Your task to perform on an android device: Go to Amazon Image 0: 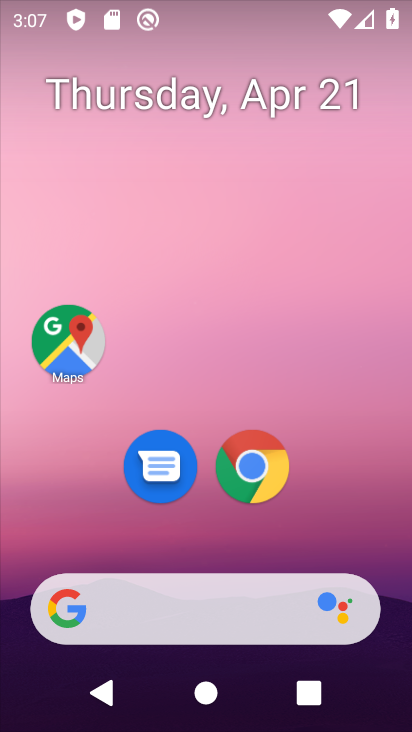
Step 0: click (241, 457)
Your task to perform on an android device: Go to Amazon Image 1: 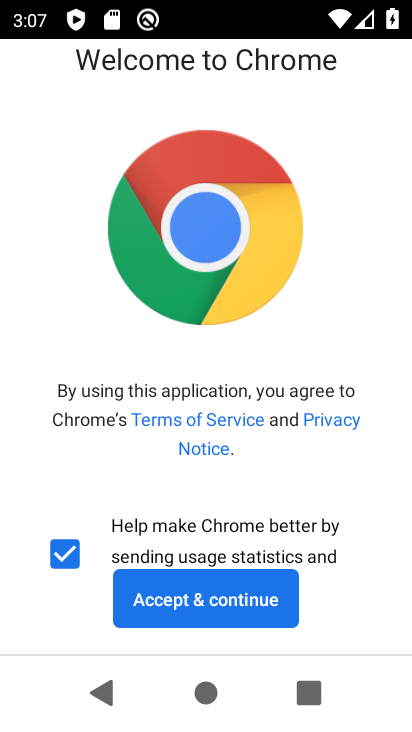
Step 1: click (225, 578)
Your task to perform on an android device: Go to Amazon Image 2: 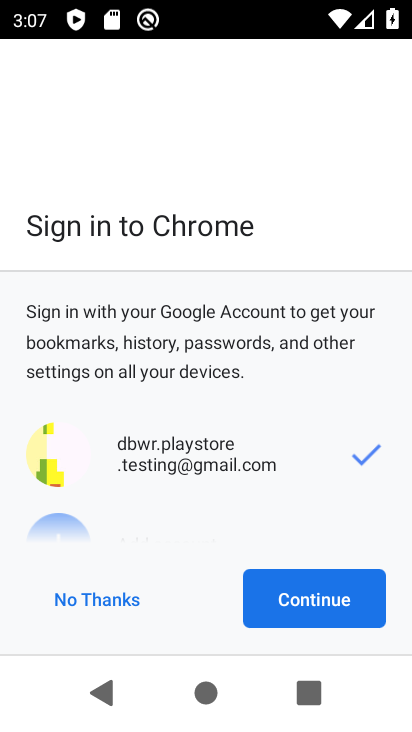
Step 2: click (287, 605)
Your task to perform on an android device: Go to Amazon Image 3: 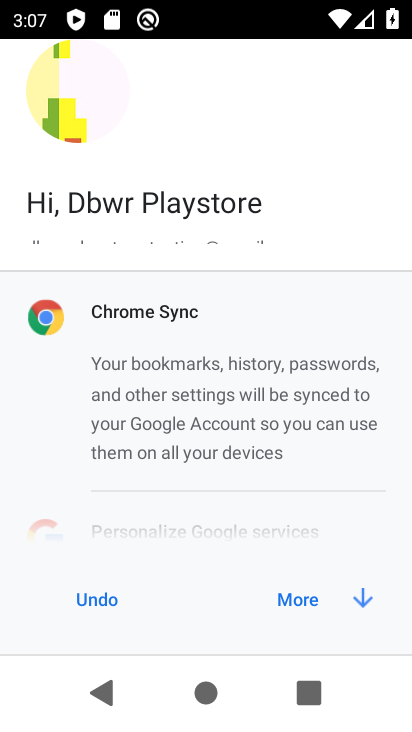
Step 3: click (316, 597)
Your task to perform on an android device: Go to Amazon Image 4: 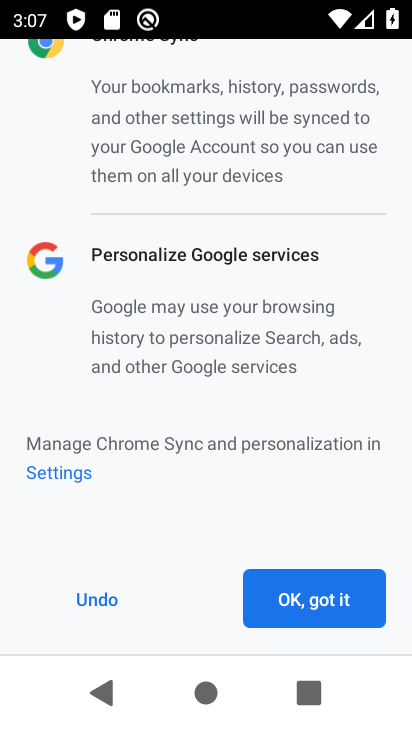
Step 4: click (316, 597)
Your task to perform on an android device: Go to Amazon Image 5: 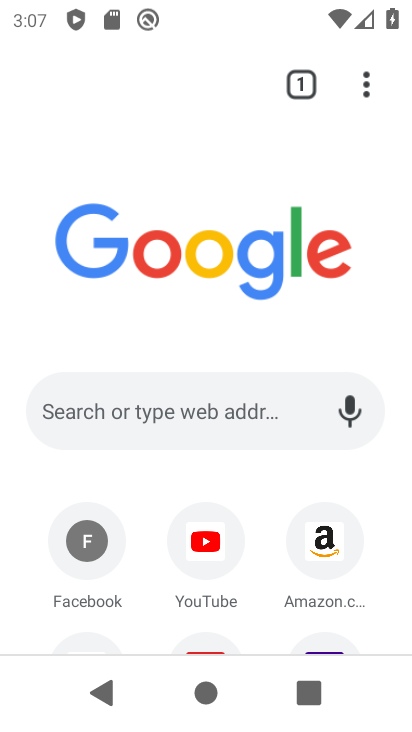
Step 5: click (323, 542)
Your task to perform on an android device: Go to Amazon Image 6: 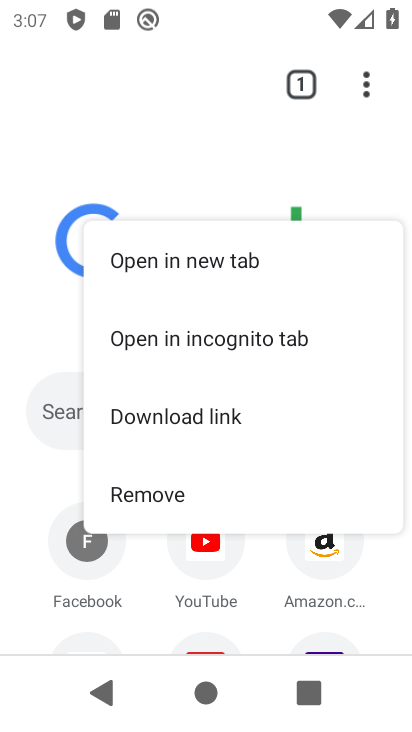
Step 6: click (319, 548)
Your task to perform on an android device: Go to Amazon Image 7: 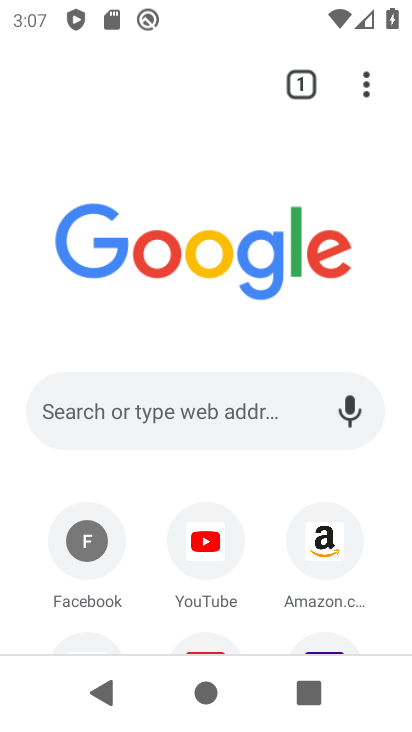
Step 7: click (319, 548)
Your task to perform on an android device: Go to Amazon Image 8: 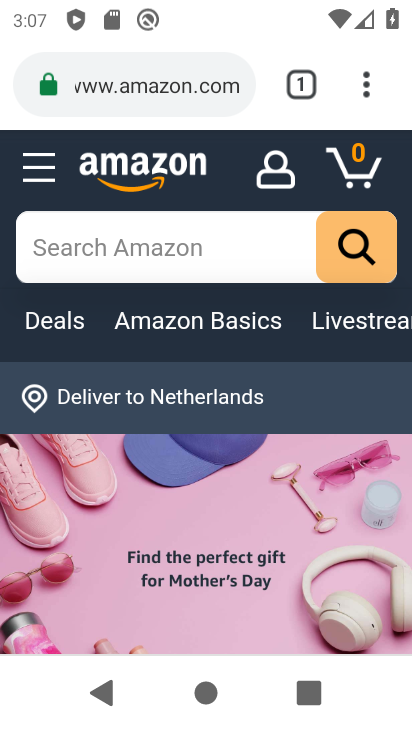
Step 8: task complete